Your task to perform on an android device: change timer sound Image 0: 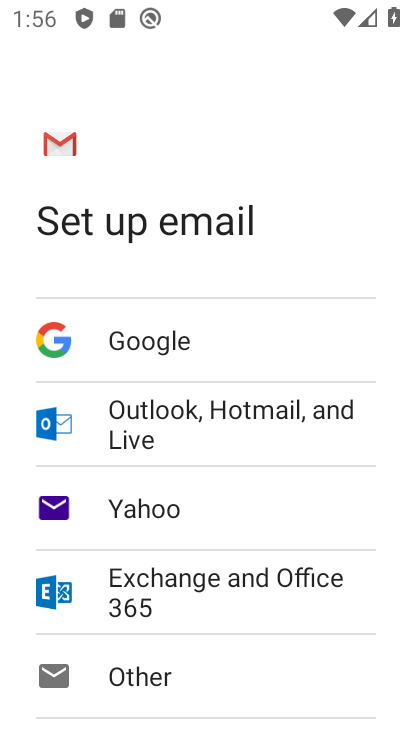
Step 0: press back button
Your task to perform on an android device: change timer sound Image 1: 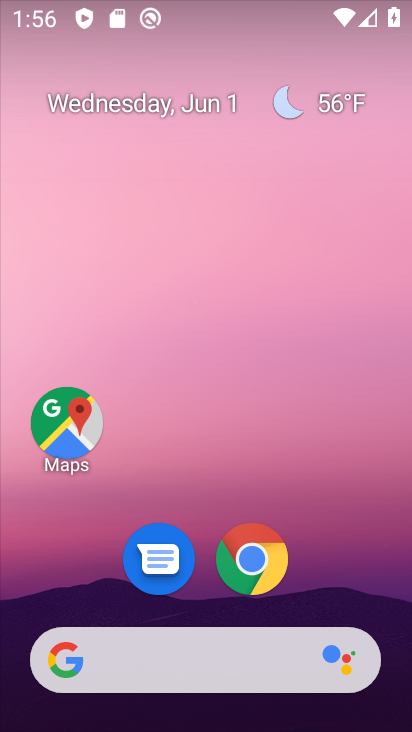
Step 1: drag from (323, 585) to (234, 195)
Your task to perform on an android device: change timer sound Image 2: 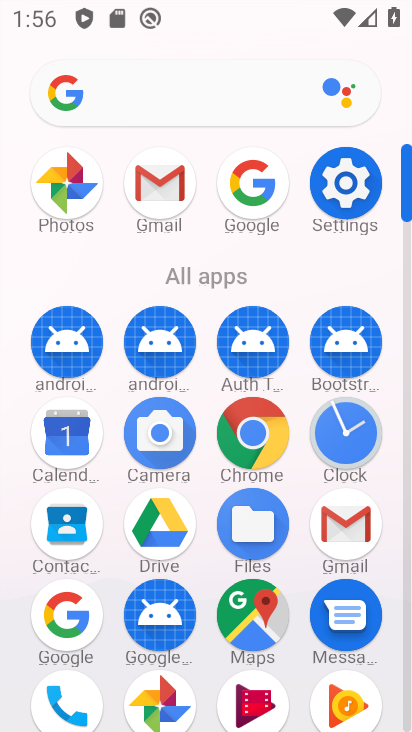
Step 2: click (349, 432)
Your task to perform on an android device: change timer sound Image 3: 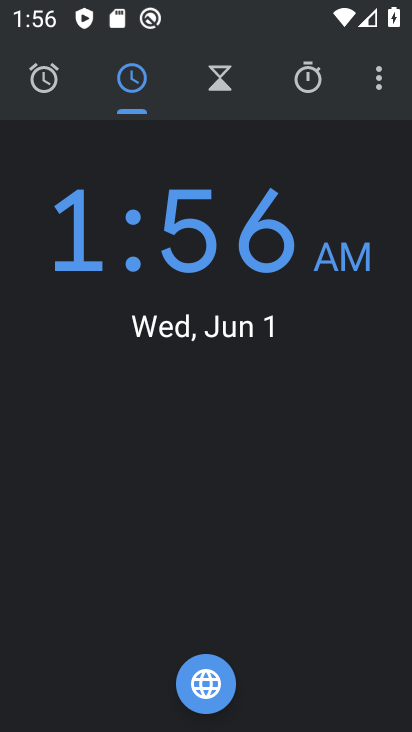
Step 3: click (379, 78)
Your task to perform on an android device: change timer sound Image 4: 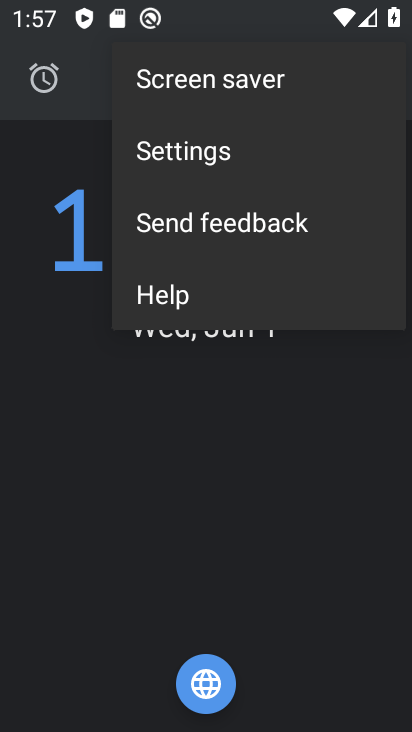
Step 4: click (224, 152)
Your task to perform on an android device: change timer sound Image 5: 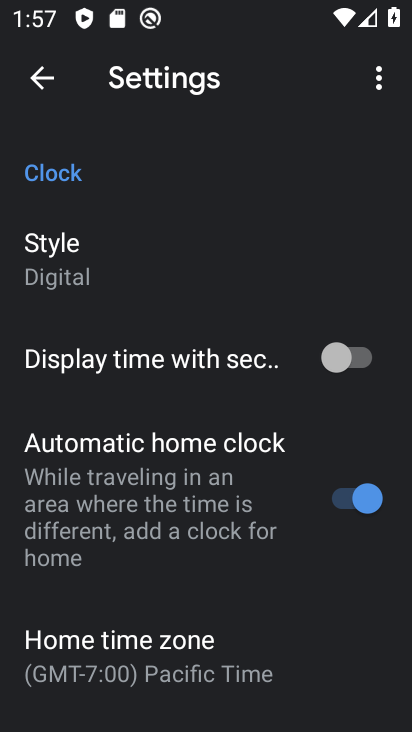
Step 5: drag from (168, 393) to (187, 267)
Your task to perform on an android device: change timer sound Image 6: 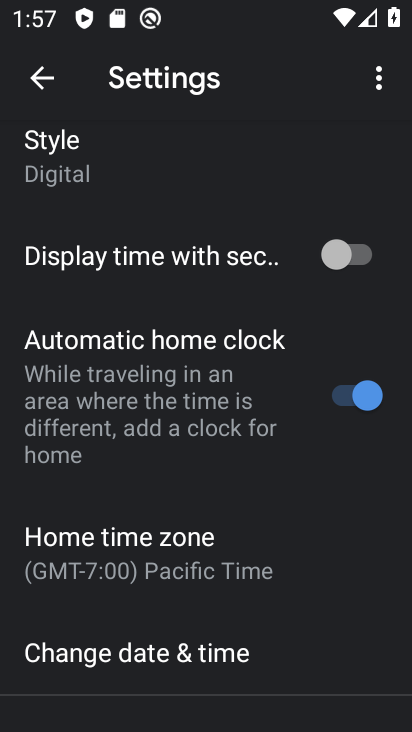
Step 6: drag from (145, 468) to (172, 308)
Your task to perform on an android device: change timer sound Image 7: 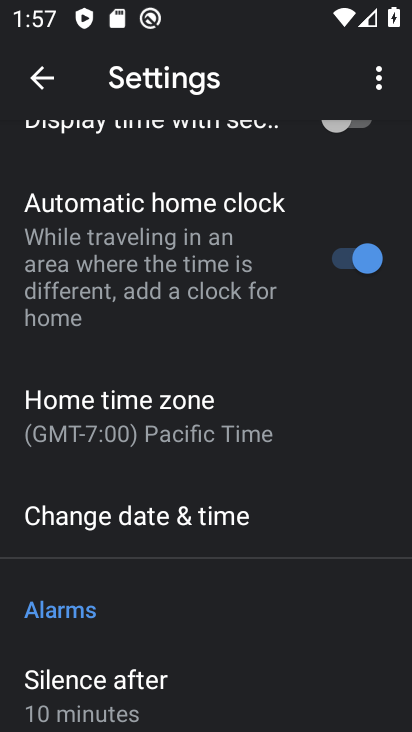
Step 7: drag from (155, 479) to (192, 378)
Your task to perform on an android device: change timer sound Image 8: 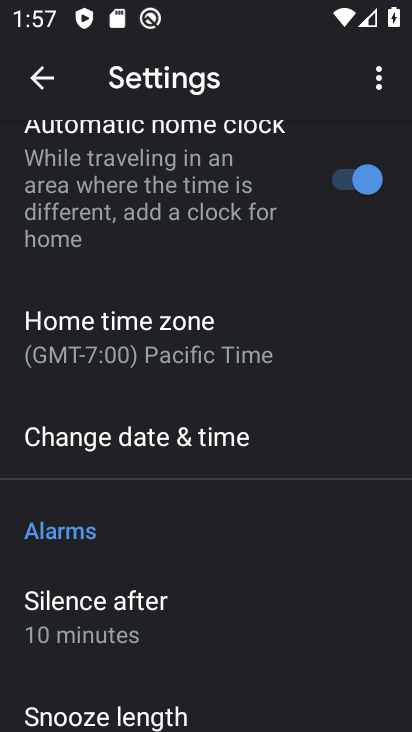
Step 8: drag from (182, 464) to (172, 353)
Your task to perform on an android device: change timer sound Image 9: 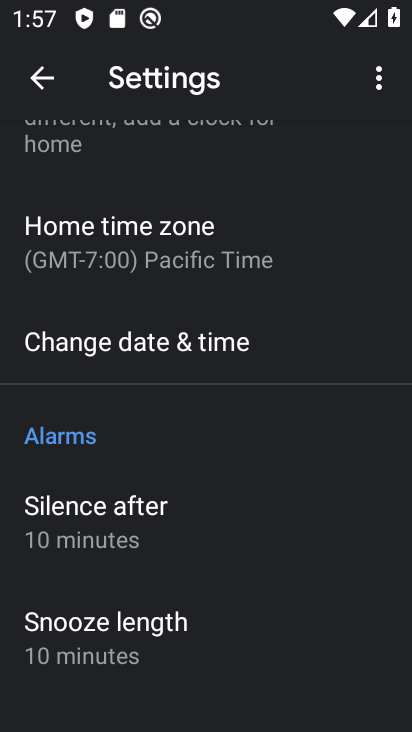
Step 9: drag from (153, 443) to (157, 301)
Your task to perform on an android device: change timer sound Image 10: 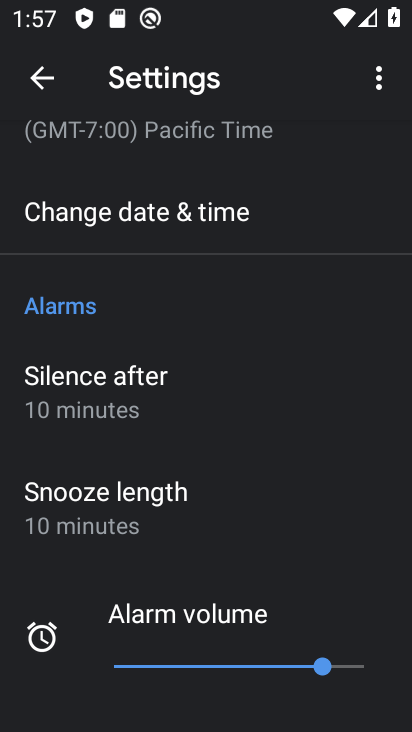
Step 10: drag from (186, 439) to (202, 237)
Your task to perform on an android device: change timer sound Image 11: 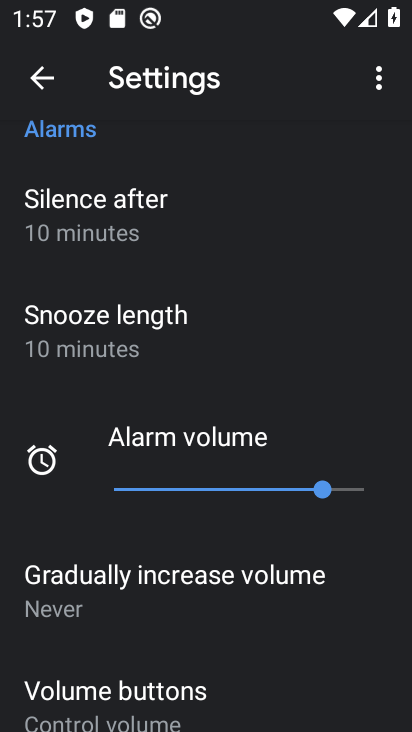
Step 11: drag from (216, 379) to (204, 159)
Your task to perform on an android device: change timer sound Image 12: 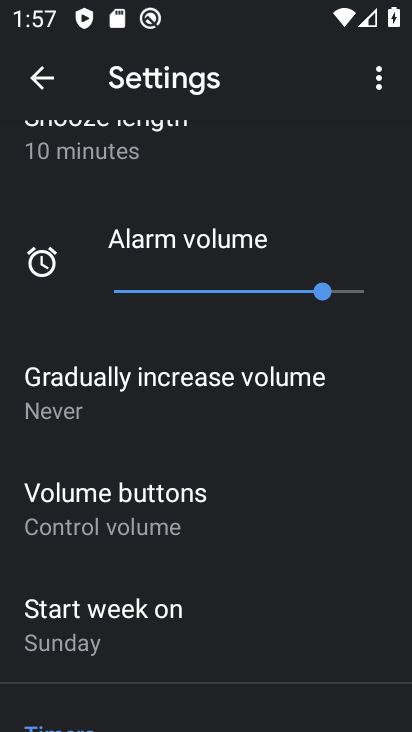
Step 12: drag from (137, 456) to (172, 229)
Your task to perform on an android device: change timer sound Image 13: 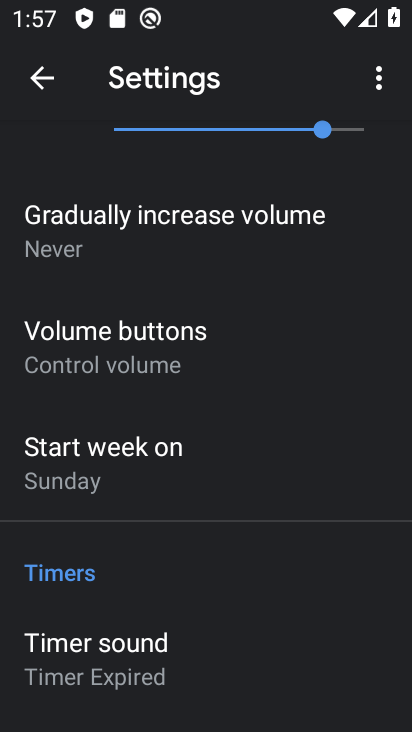
Step 13: drag from (138, 550) to (177, 349)
Your task to perform on an android device: change timer sound Image 14: 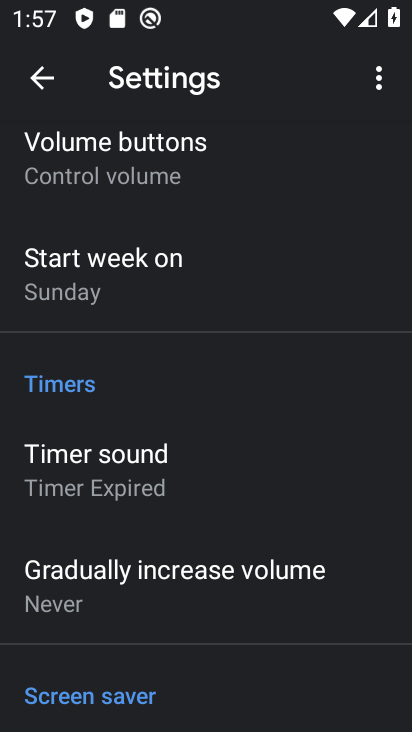
Step 14: click (101, 466)
Your task to perform on an android device: change timer sound Image 15: 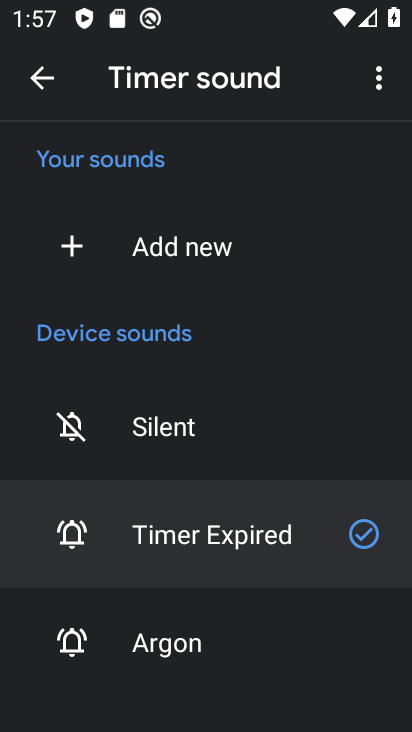
Step 15: drag from (245, 643) to (260, 425)
Your task to perform on an android device: change timer sound Image 16: 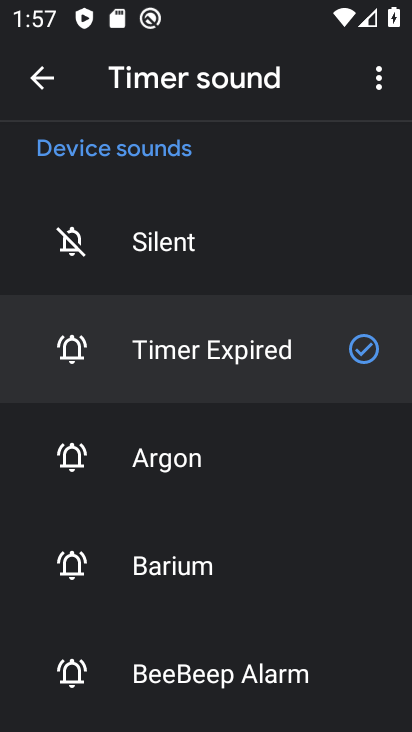
Step 16: drag from (230, 599) to (258, 432)
Your task to perform on an android device: change timer sound Image 17: 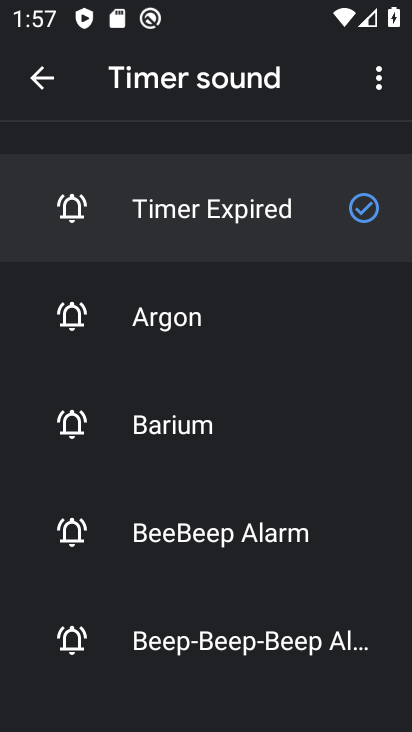
Step 17: drag from (191, 581) to (228, 427)
Your task to perform on an android device: change timer sound Image 18: 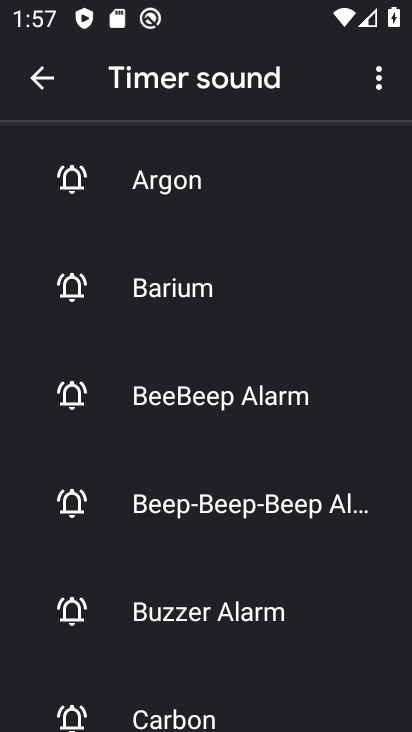
Step 18: drag from (170, 570) to (182, 401)
Your task to perform on an android device: change timer sound Image 19: 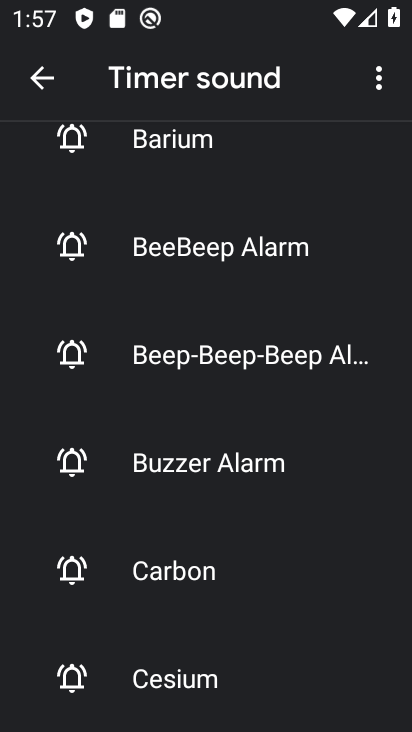
Step 19: drag from (180, 524) to (193, 348)
Your task to perform on an android device: change timer sound Image 20: 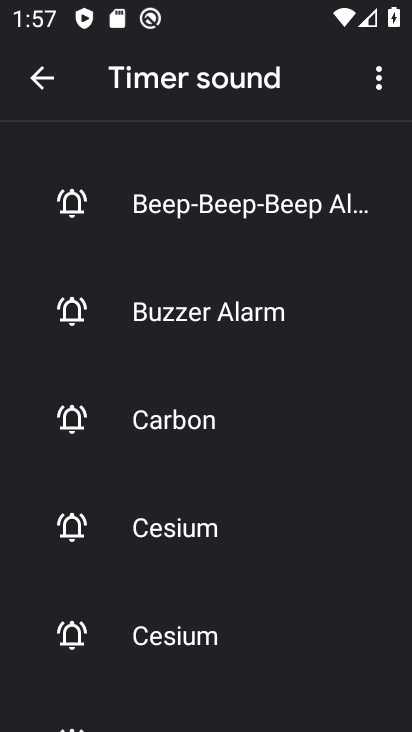
Step 20: drag from (171, 559) to (222, 395)
Your task to perform on an android device: change timer sound Image 21: 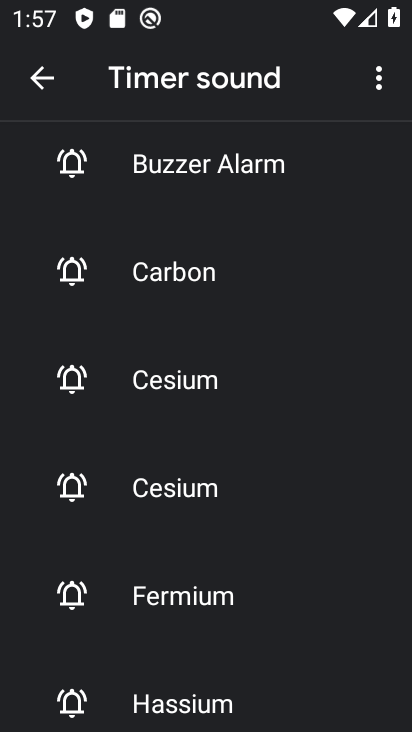
Step 21: click (204, 492)
Your task to perform on an android device: change timer sound Image 22: 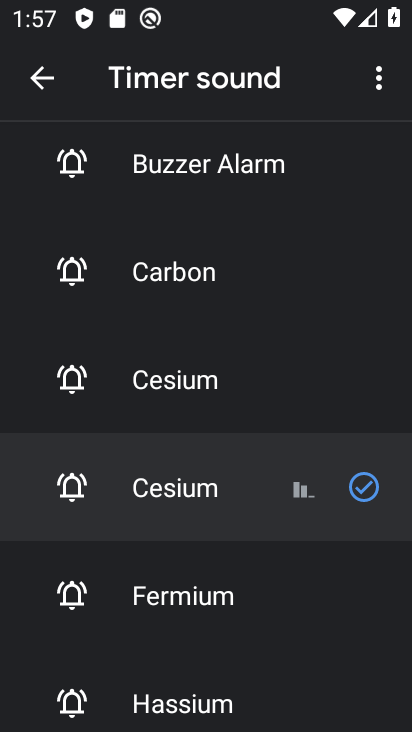
Step 22: task complete